Your task to perform on an android device: Go to Android settings Image 0: 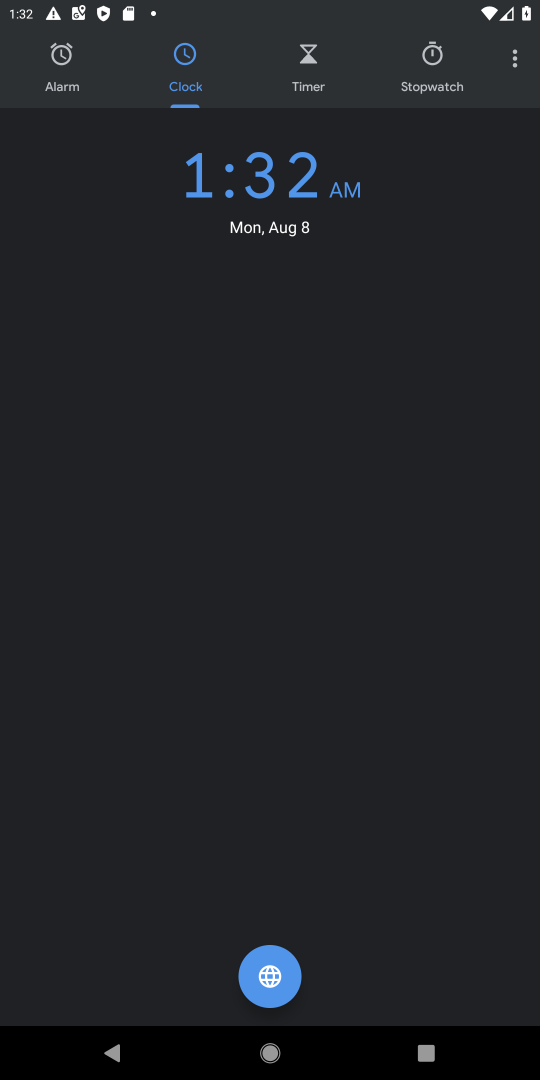
Step 0: press home button
Your task to perform on an android device: Go to Android settings Image 1: 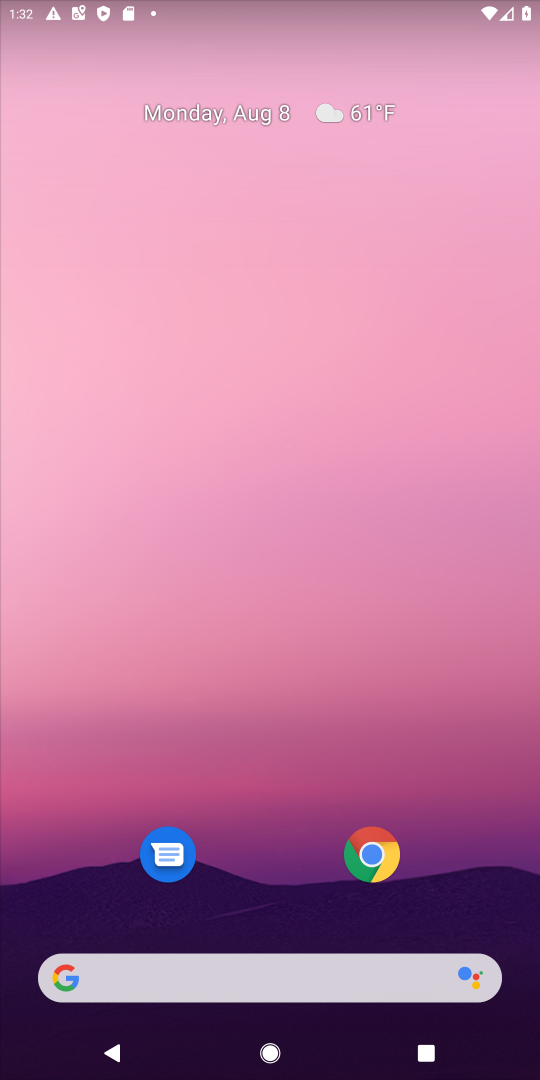
Step 1: drag from (41, 1018) to (206, 130)
Your task to perform on an android device: Go to Android settings Image 2: 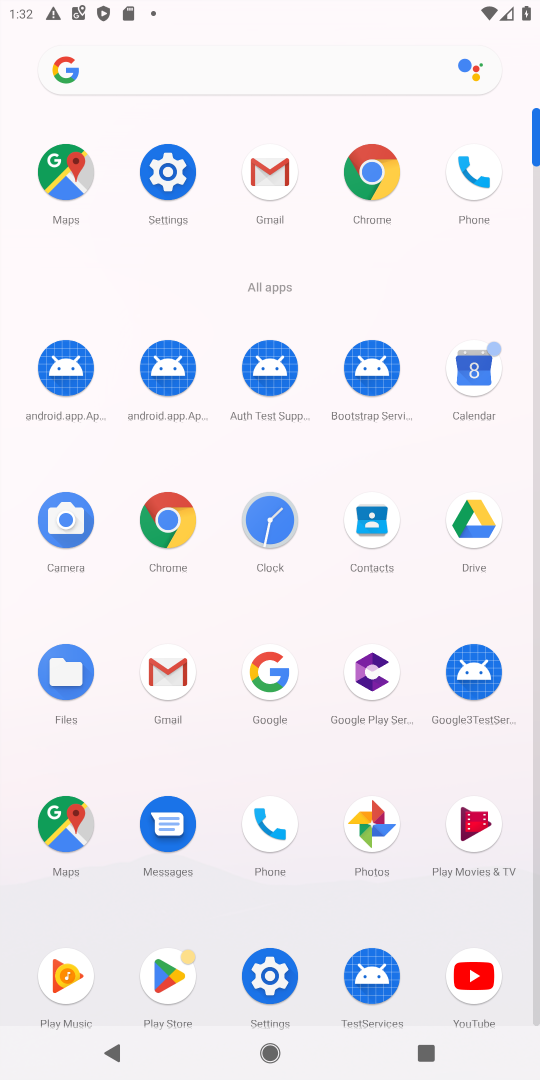
Step 2: click (277, 968)
Your task to perform on an android device: Go to Android settings Image 3: 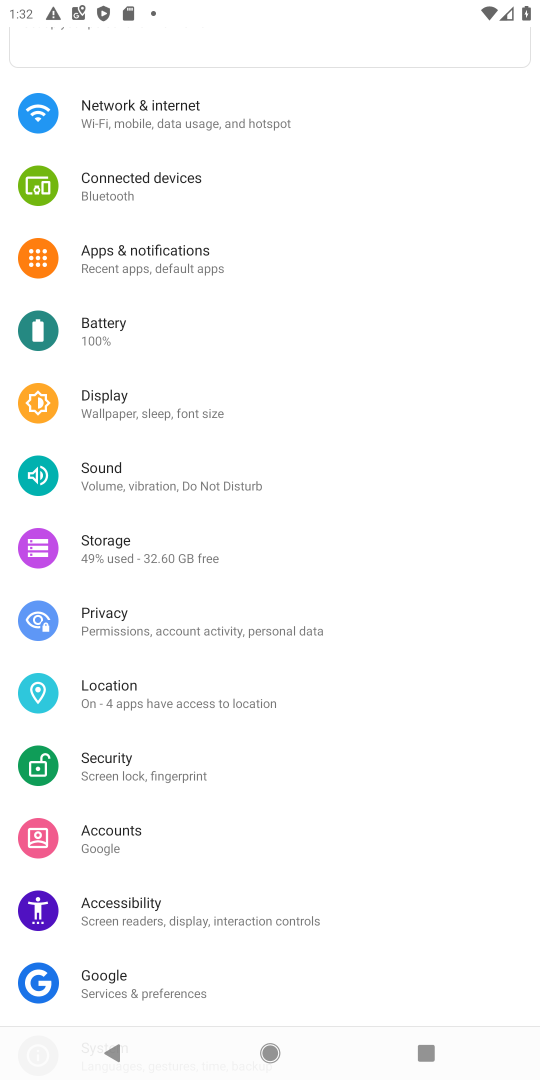
Step 3: drag from (435, 942) to (436, 611)
Your task to perform on an android device: Go to Android settings Image 4: 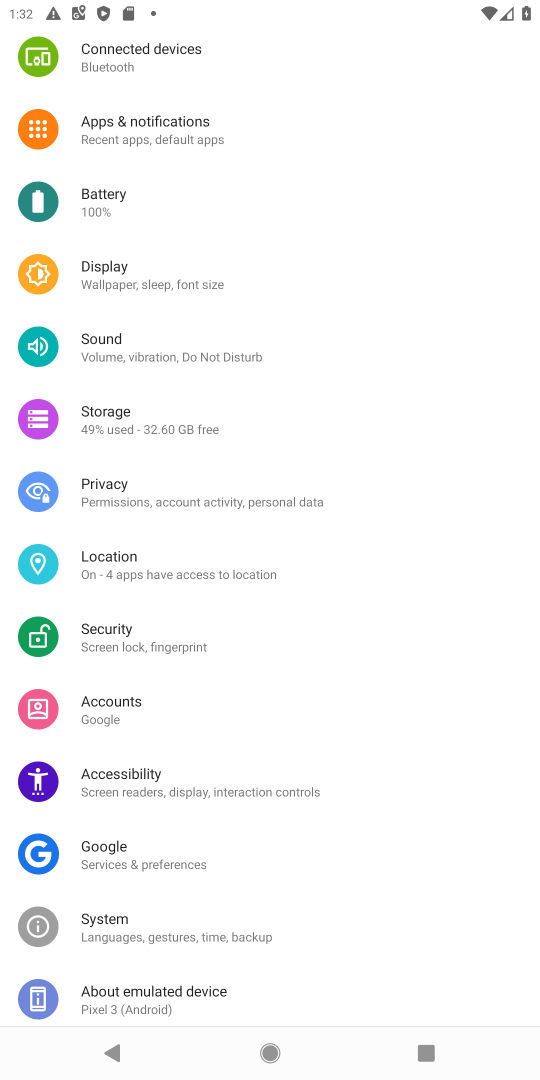
Step 4: click (132, 1001)
Your task to perform on an android device: Go to Android settings Image 5: 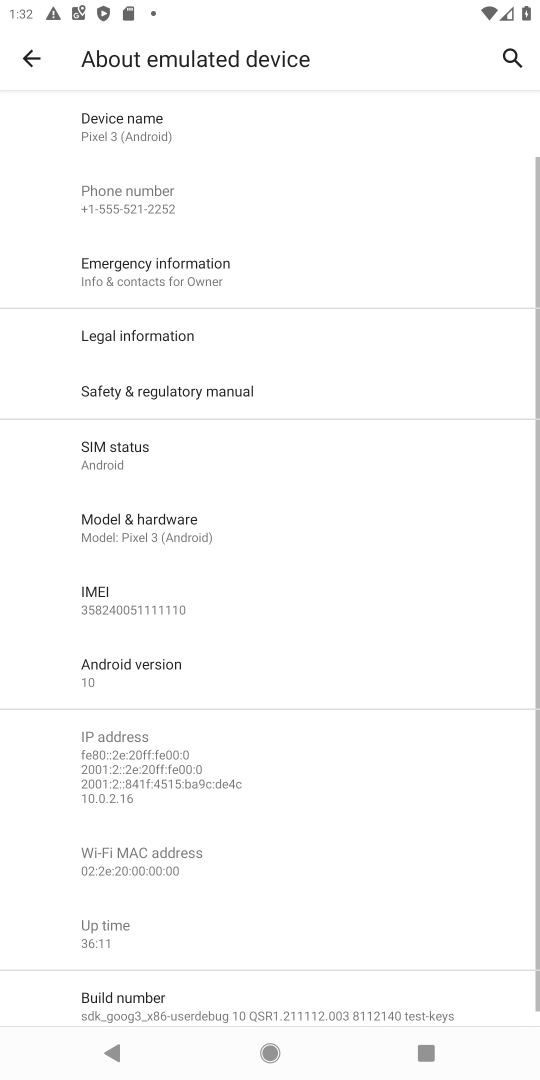
Step 5: click (162, 671)
Your task to perform on an android device: Go to Android settings Image 6: 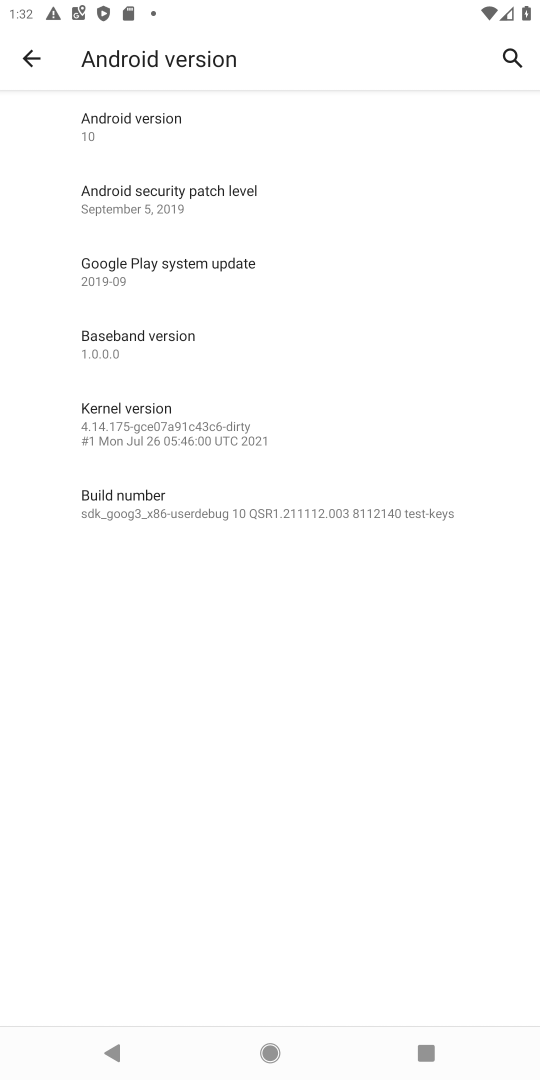
Step 6: task complete